Your task to perform on an android device: Open location settings Image 0: 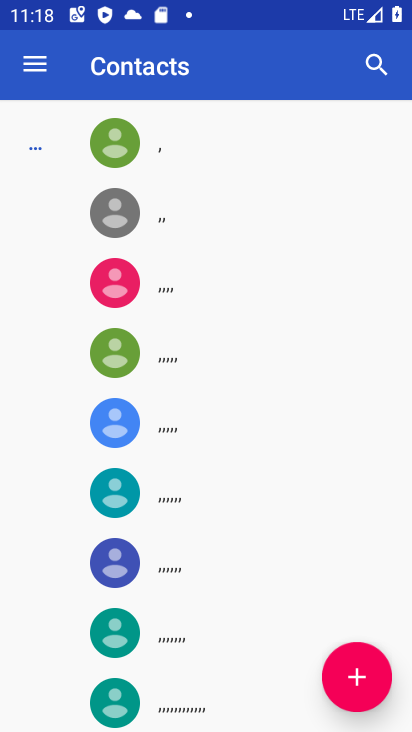
Step 0: press home button
Your task to perform on an android device: Open location settings Image 1: 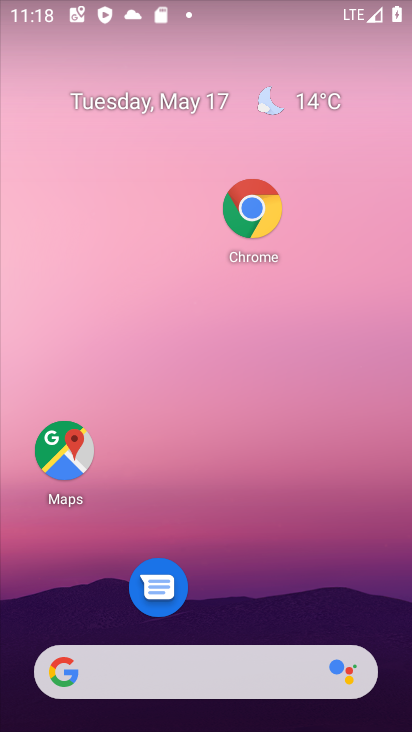
Step 1: drag from (304, 555) to (358, 95)
Your task to perform on an android device: Open location settings Image 2: 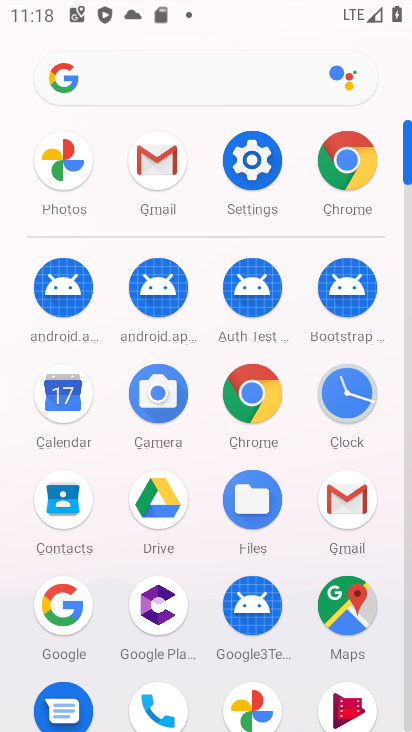
Step 2: click (256, 164)
Your task to perform on an android device: Open location settings Image 3: 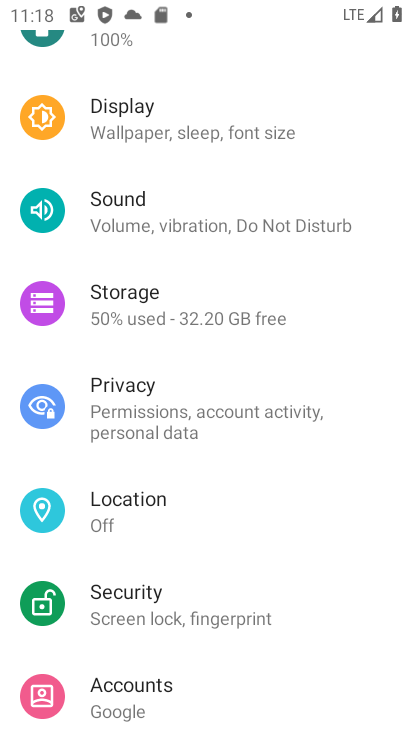
Step 3: click (151, 509)
Your task to perform on an android device: Open location settings Image 4: 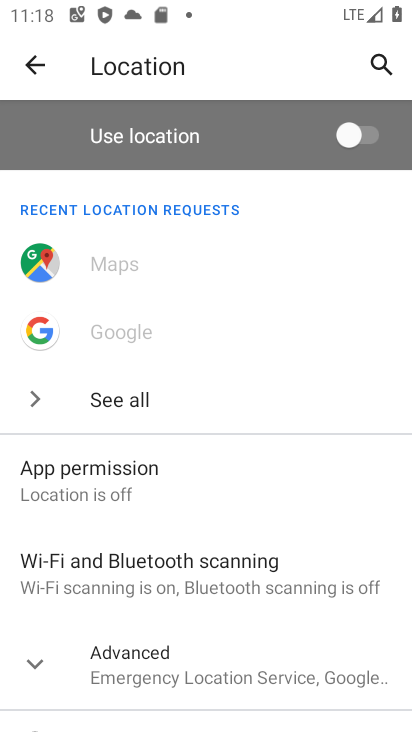
Step 4: task complete